Your task to perform on an android device: Do I have any events this weekend? Image 0: 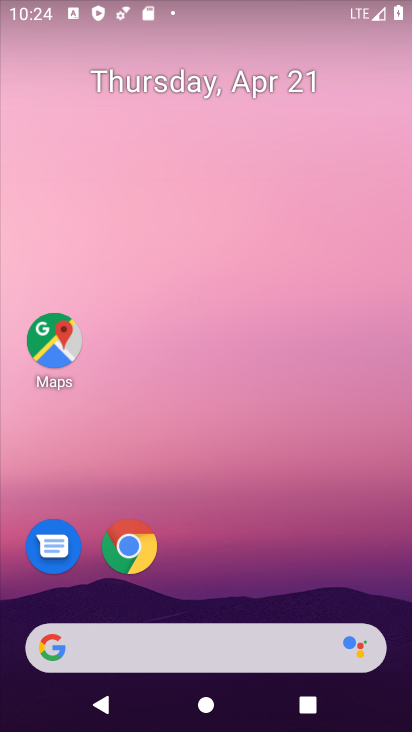
Step 0: drag from (360, 593) to (162, 154)
Your task to perform on an android device: Do I have any events this weekend? Image 1: 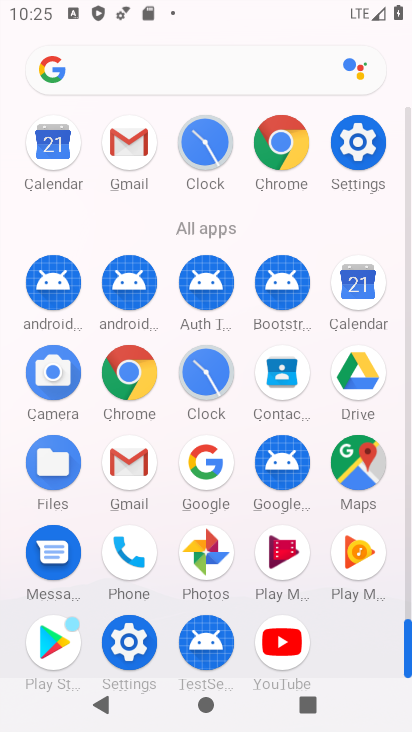
Step 1: click (357, 282)
Your task to perform on an android device: Do I have any events this weekend? Image 2: 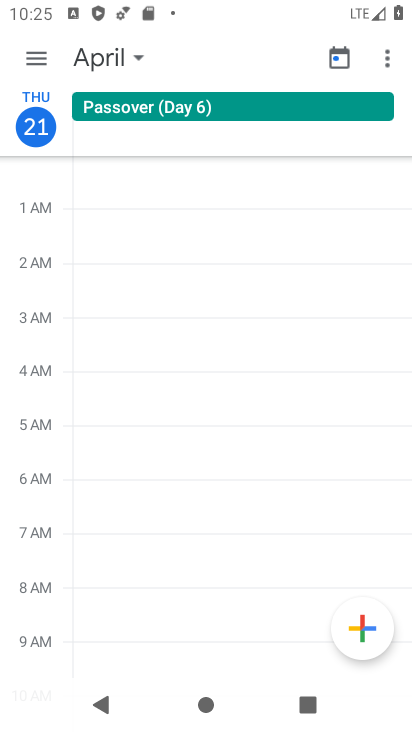
Step 2: click (38, 60)
Your task to perform on an android device: Do I have any events this weekend? Image 3: 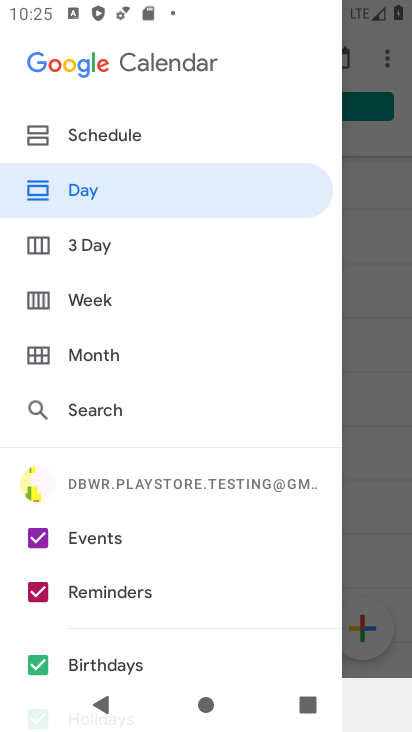
Step 3: click (86, 300)
Your task to perform on an android device: Do I have any events this weekend? Image 4: 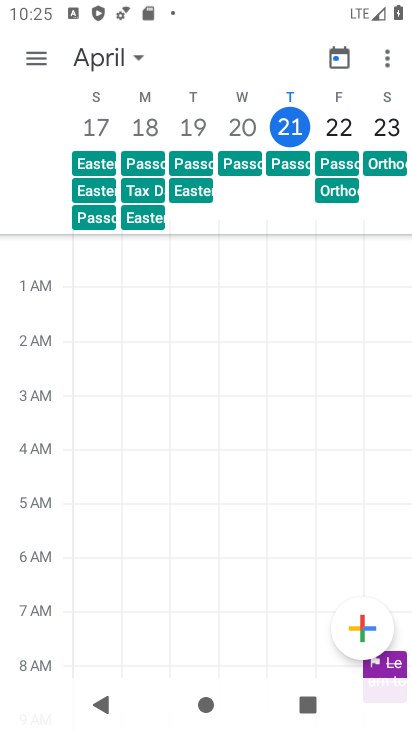
Step 4: task complete